Your task to perform on an android device: toggle show notifications on the lock screen Image 0: 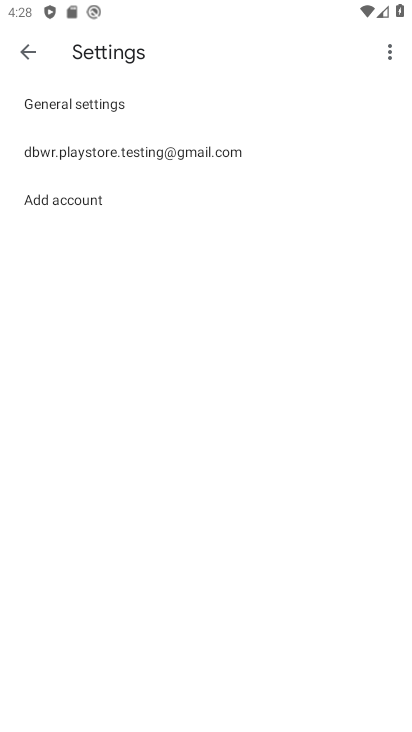
Step 0: press home button
Your task to perform on an android device: toggle show notifications on the lock screen Image 1: 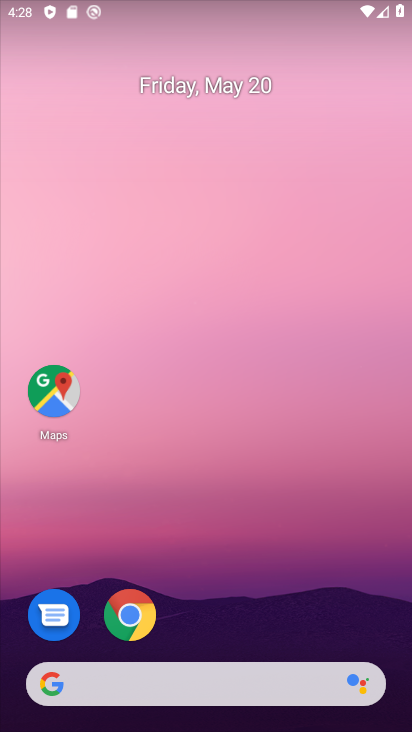
Step 1: drag from (273, 659) to (348, 198)
Your task to perform on an android device: toggle show notifications on the lock screen Image 2: 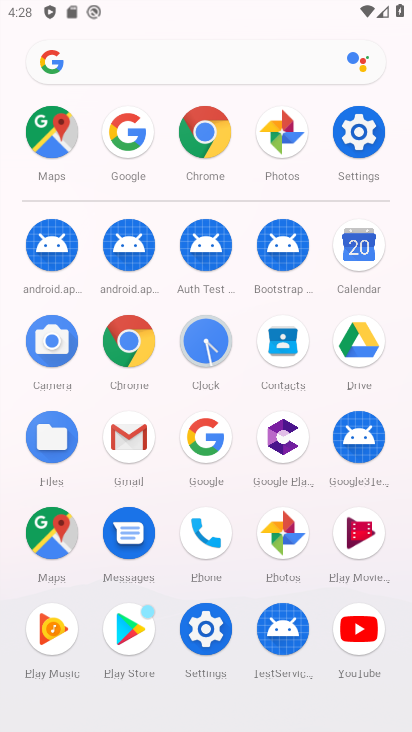
Step 2: click (364, 146)
Your task to perform on an android device: toggle show notifications on the lock screen Image 3: 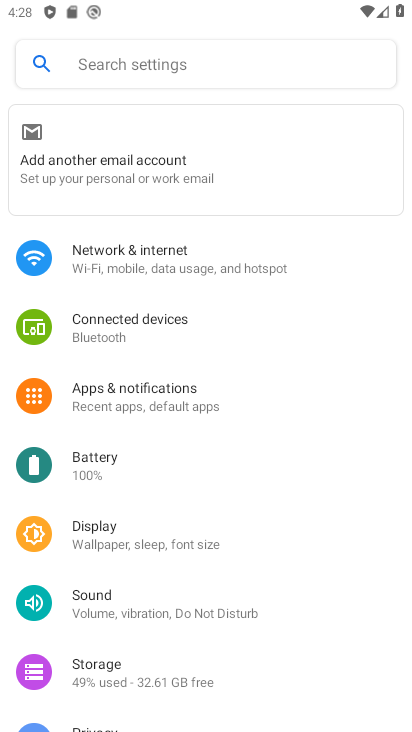
Step 3: click (195, 407)
Your task to perform on an android device: toggle show notifications on the lock screen Image 4: 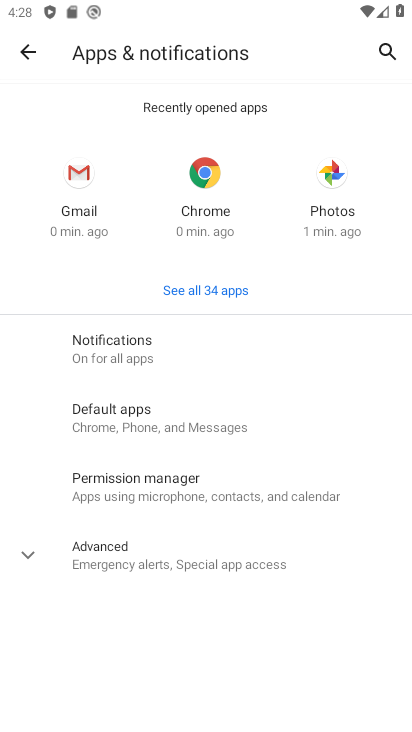
Step 4: click (192, 348)
Your task to perform on an android device: toggle show notifications on the lock screen Image 5: 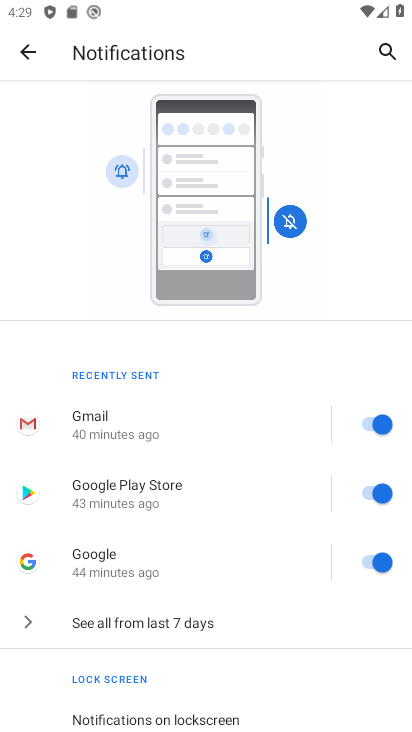
Step 5: drag from (165, 567) to (266, 147)
Your task to perform on an android device: toggle show notifications on the lock screen Image 6: 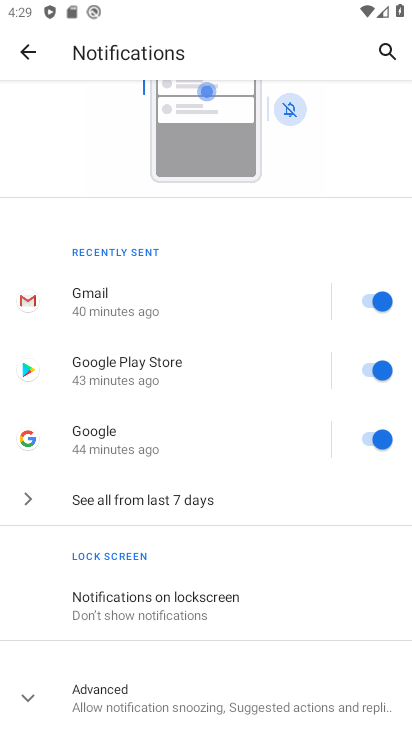
Step 6: click (193, 618)
Your task to perform on an android device: toggle show notifications on the lock screen Image 7: 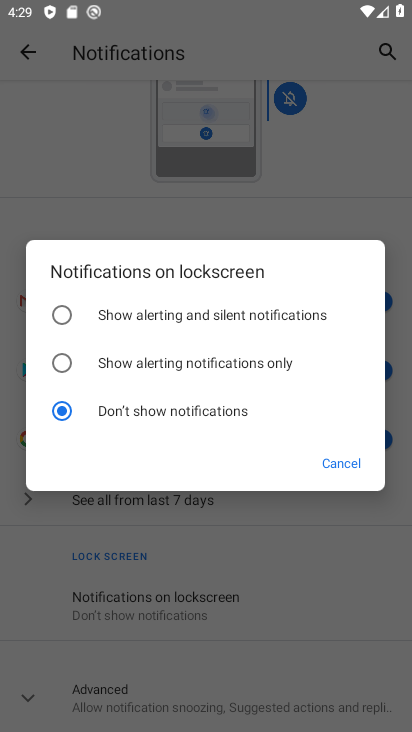
Step 7: click (162, 320)
Your task to perform on an android device: toggle show notifications on the lock screen Image 8: 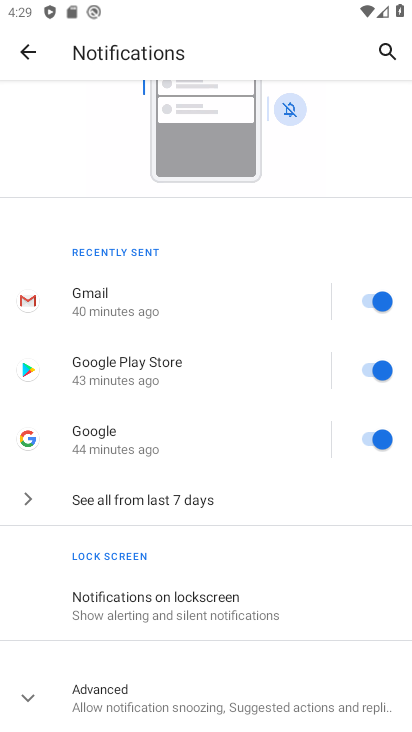
Step 8: task complete